Your task to perform on an android device: Open display settings Image 0: 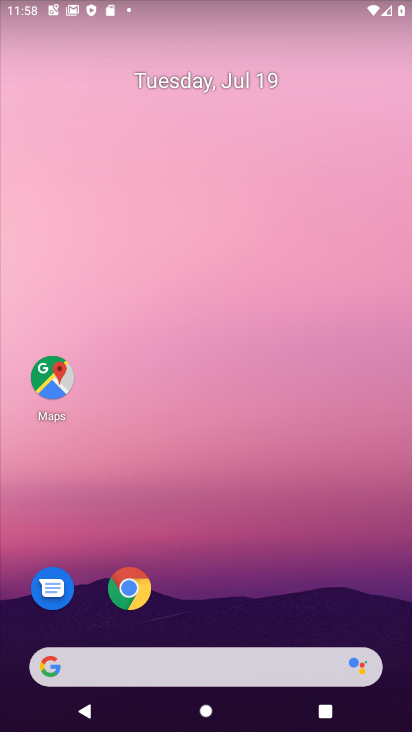
Step 0: drag from (392, 644) to (355, 141)
Your task to perform on an android device: Open display settings Image 1: 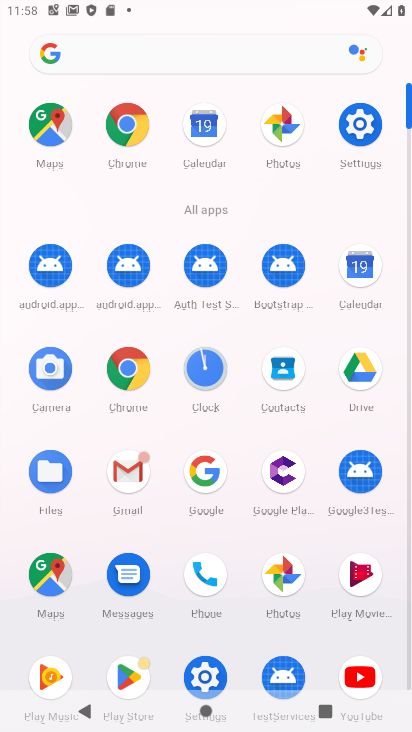
Step 1: click (351, 135)
Your task to perform on an android device: Open display settings Image 2: 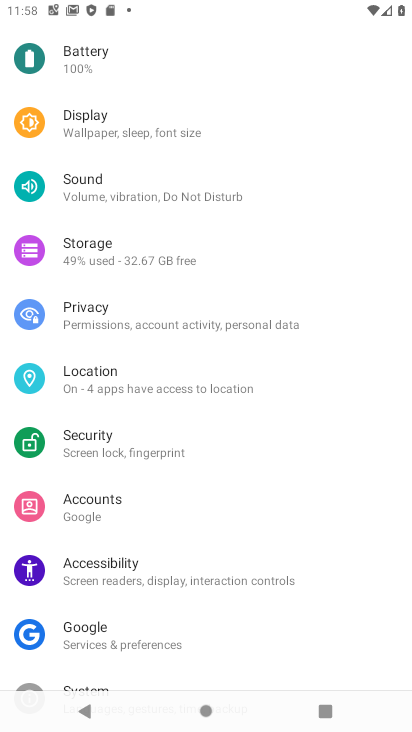
Step 2: click (95, 121)
Your task to perform on an android device: Open display settings Image 3: 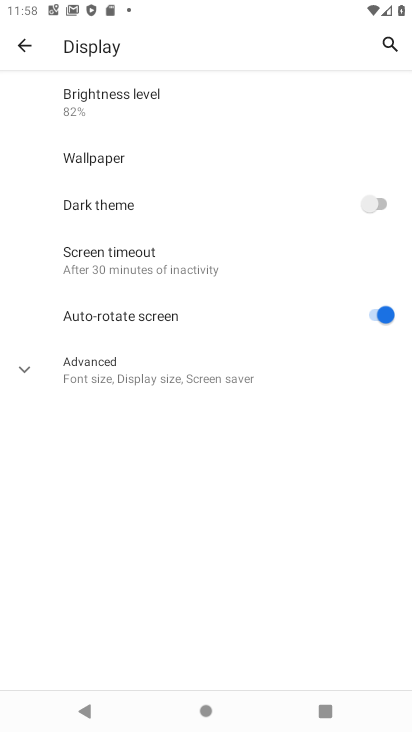
Step 3: click (16, 364)
Your task to perform on an android device: Open display settings Image 4: 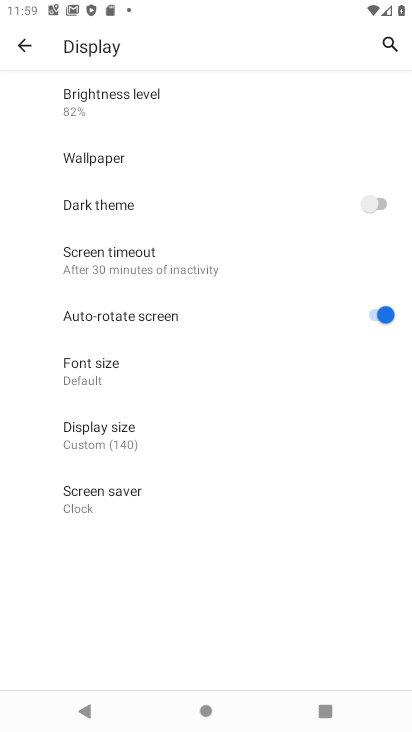
Step 4: task complete